Your task to perform on an android device: change notifications settings Image 0: 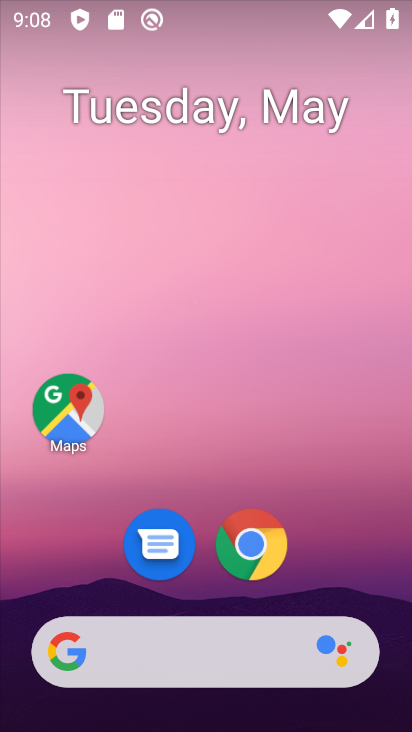
Step 0: drag from (330, 565) to (326, 207)
Your task to perform on an android device: change notifications settings Image 1: 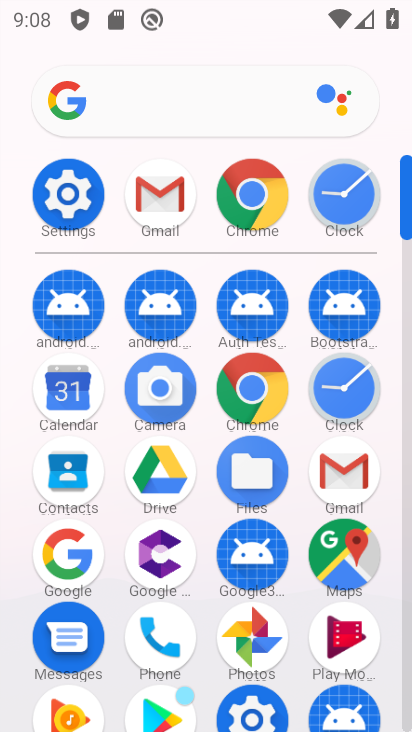
Step 1: click (76, 199)
Your task to perform on an android device: change notifications settings Image 2: 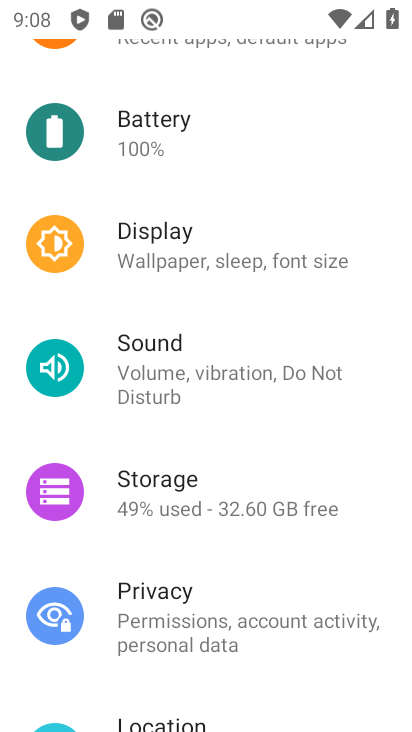
Step 2: drag from (290, 200) to (294, 554)
Your task to perform on an android device: change notifications settings Image 3: 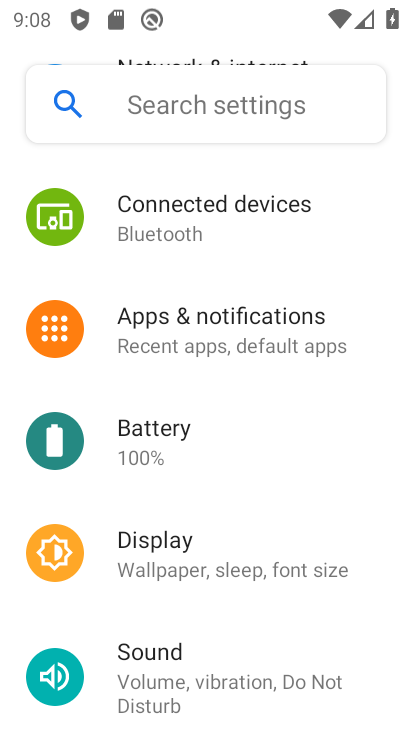
Step 3: click (284, 349)
Your task to perform on an android device: change notifications settings Image 4: 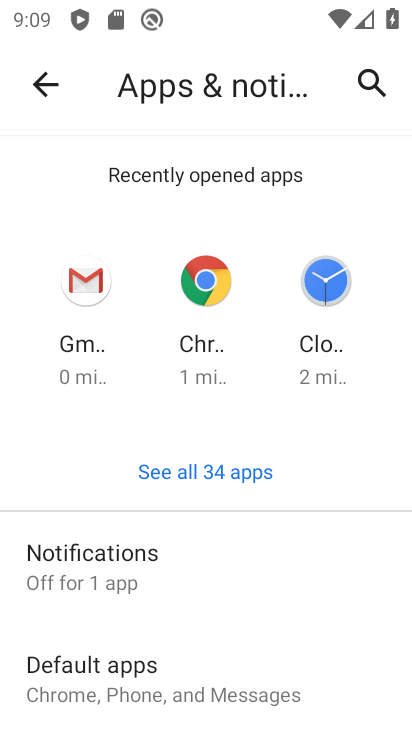
Step 4: click (109, 567)
Your task to perform on an android device: change notifications settings Image 5: 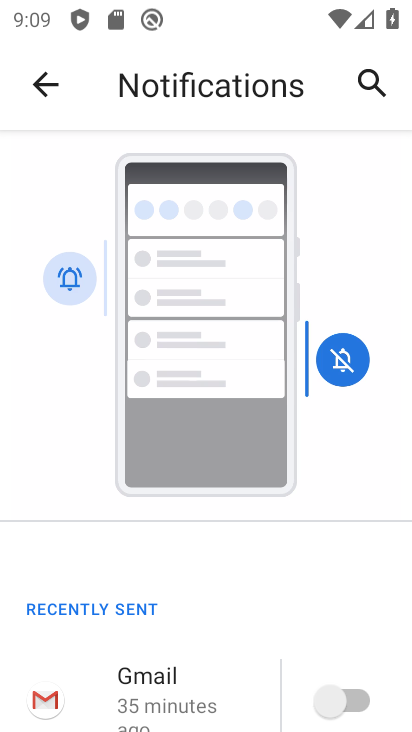
Step 5: task complete